Your task to perform on an android device: open device folders in google photos Image 0: 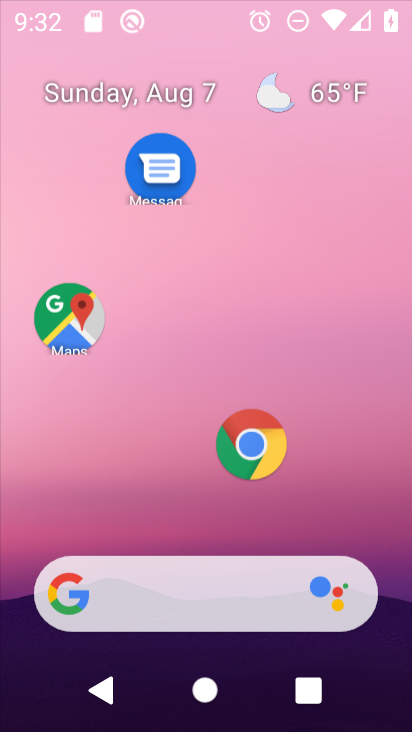
Step 0: press home button
Your task to perform on an android device: open device folders in google photos Image 1: 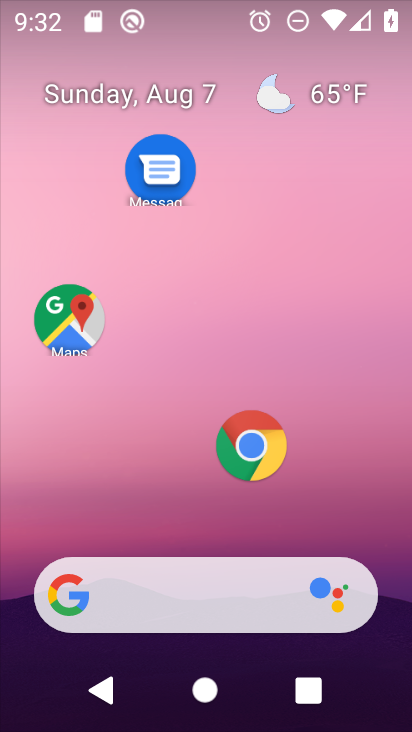
Step 1: drag from (195, 491) to (208, 46)
Your task to perform on an android device: open device folders in google photos Image 2: 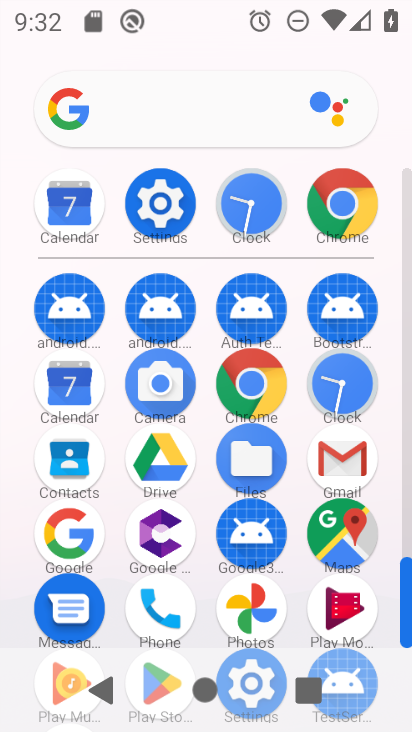
Step 2: click (250, 599)
Your task to perform on an android device: open device folders in google photos Image 3: 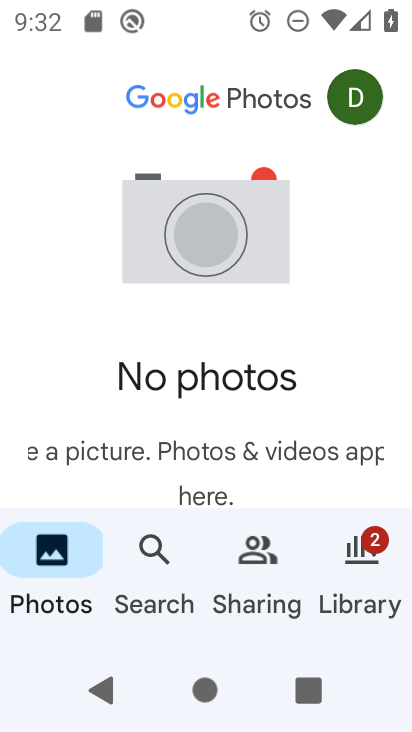
Step 3: click (151, 549)
Your task to perform on an android device: open device folders in google photos Image 4: 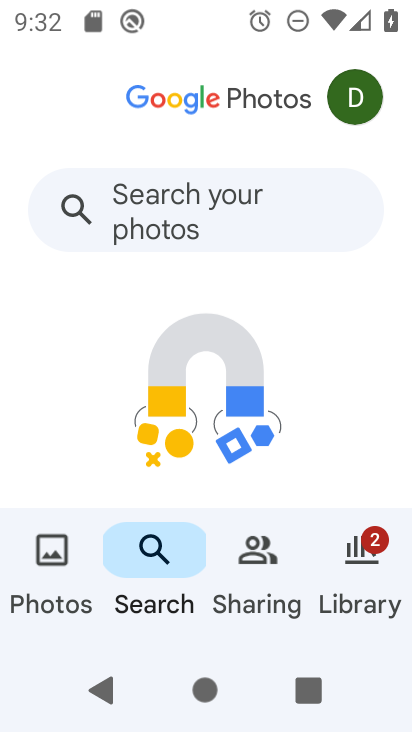
Step 4: click (128, 218)
Your task to perform on an android device: open device folders in google photos Image 5: 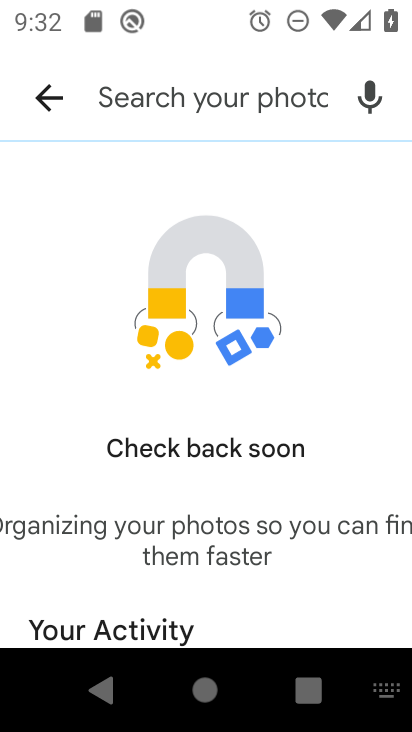
Step 5: type "device"
Your task to perform on an android device: open device folders in google photos Image 6: 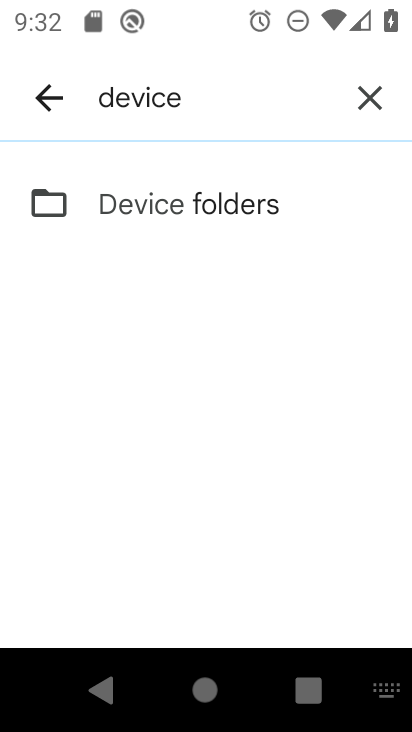
Step 6: click (190, 201)
Your task to perform on an android device: open device folders in google photos Image 7: 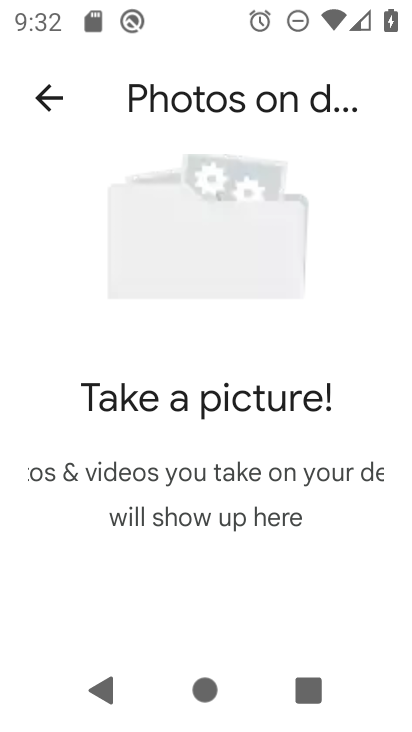
Step 7: task complete